Your task to perform on an android device: choose inbox layout in the gmail app Image 0: 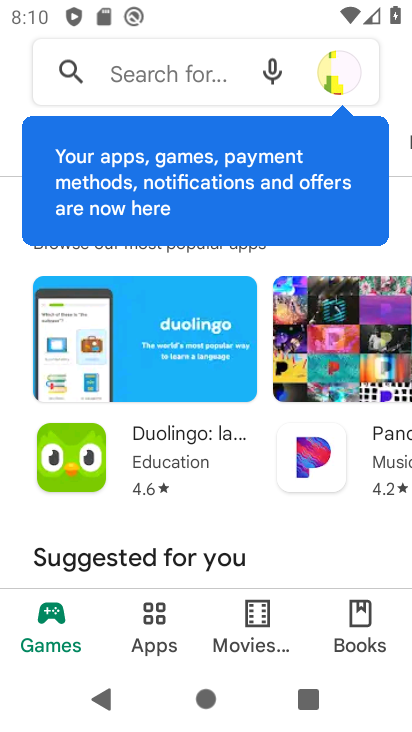
Step 0: press home button
Your task to perform on an android device: choose inbox layout in the gmail app Image 1: 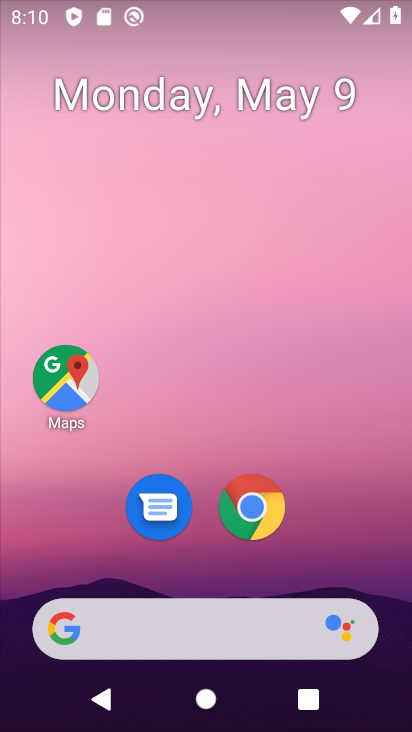
Step 1: drag from (191, 591) to (142, 0)
Your task to perform on an android device: choose inbox layout in the gmail app Image 2: 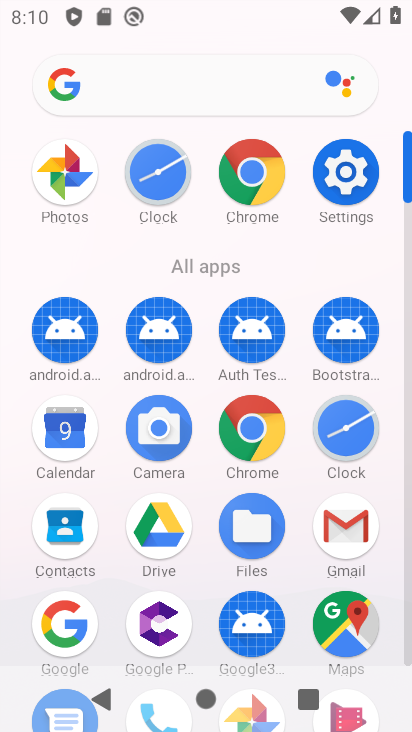
Step 2: click (369, 535)
Your task to perform on an android device: choose inbox layout in the gmail app Image 3: 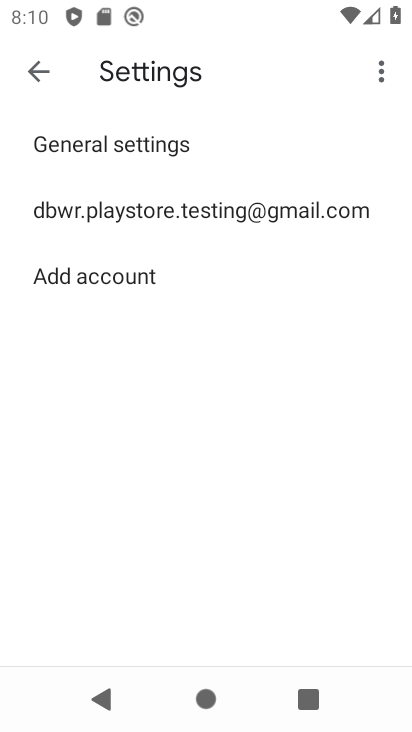
Step 3: click (24, 84)
Your task to perform on an android device: choose inbox layout in the gmail app Image 4: 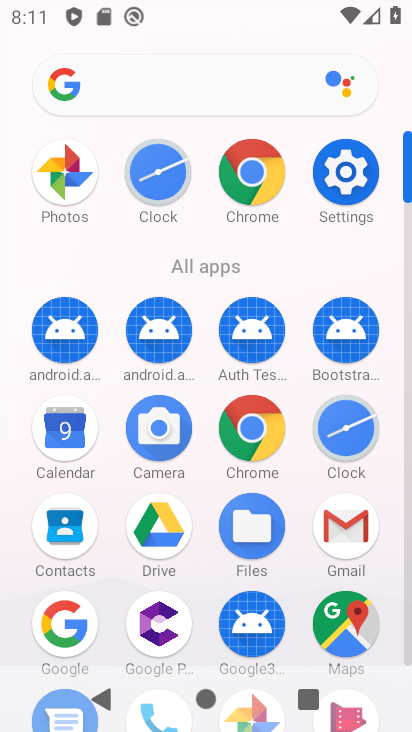
Step 4: click (328, 527)
Your task to perform on an android device: choose inbox layout in the gmail app Image 5: 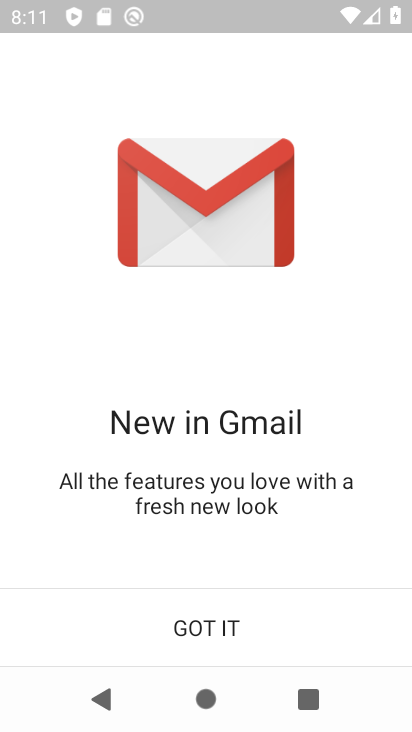
Step 5: click (215, 618)
Your task to perform on an android device: choose inbox layout in the gmail app Image 6: 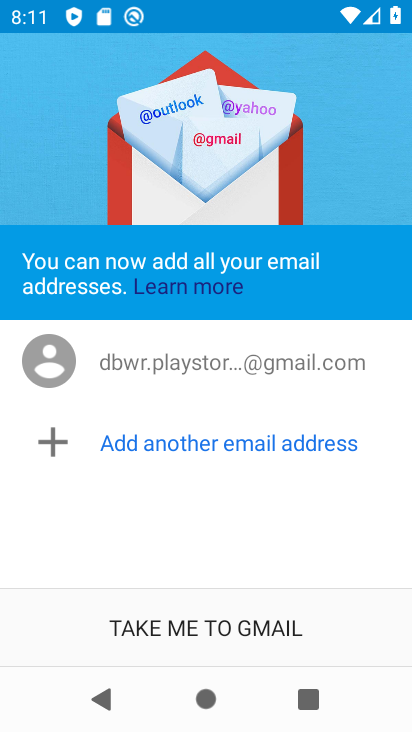
Step 6: click (196, 620)
Your task to perform on an android device: choose inbox layout in the gmail app Image 7: 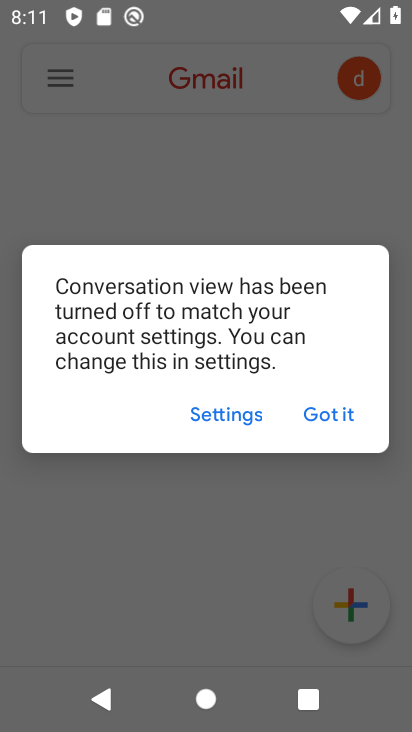
Step 7: click (333, 420)
Your task to perform on an android device: choose inbox layout in the gmail app Image 8: 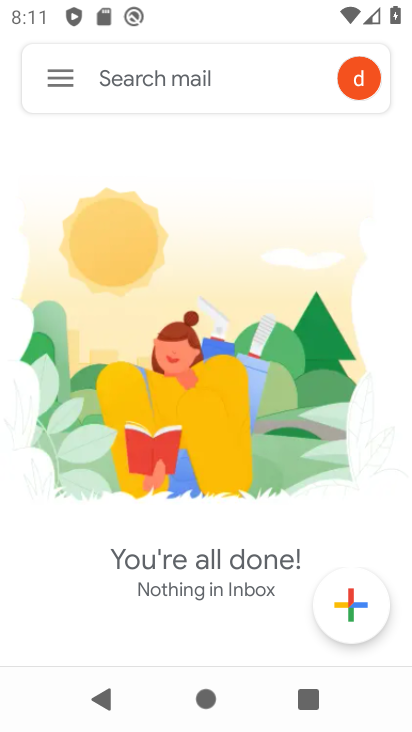
Step 8: click (35, 68)
Your task to perform on an android device: choose inbox layout in the gmail app Image 9: 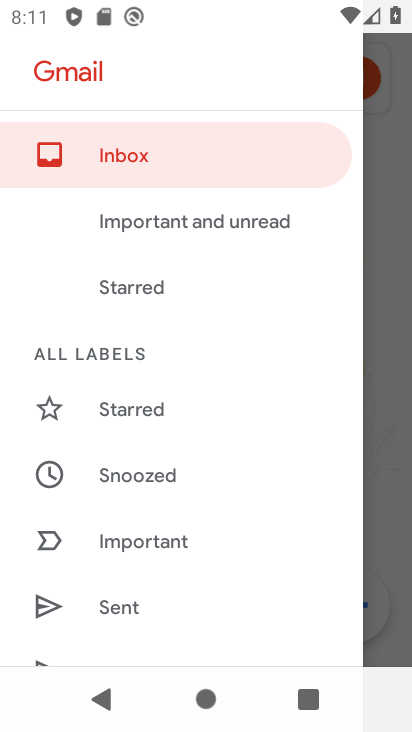
Step 9: drag from (156, 522) to (118, 17)
Your task to perform on an android device: choose inbox layout in the gmail app Image 10: 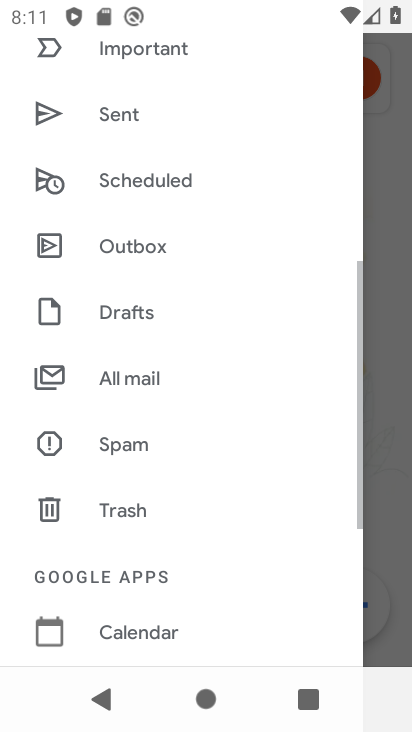
Step 10: drag from (137, 579) to (139, 122)
Your task to perform on an android device: choose inbox layout in the gmail app Image 11: 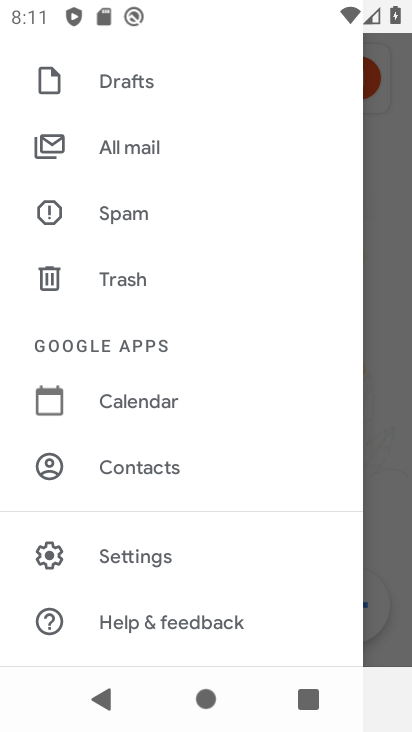
Step 11: click (148, 576)
Your task to perform on an android device: choose inbox layout in the gmail app Image 12: 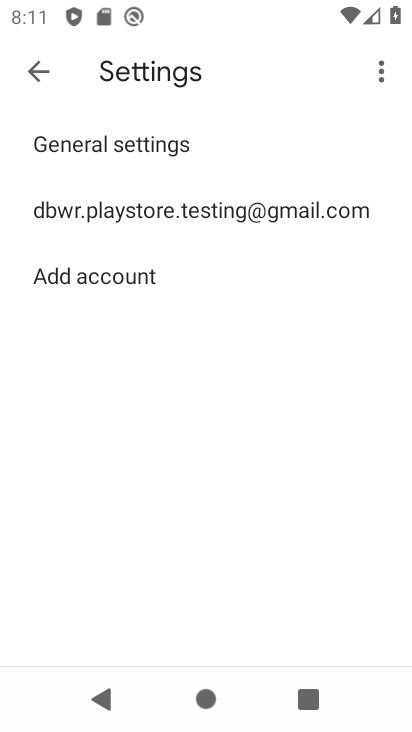
Step 12: click (170, 207)
Your task to perform on an android device: choose inbox layout in the gmail app Image 13: 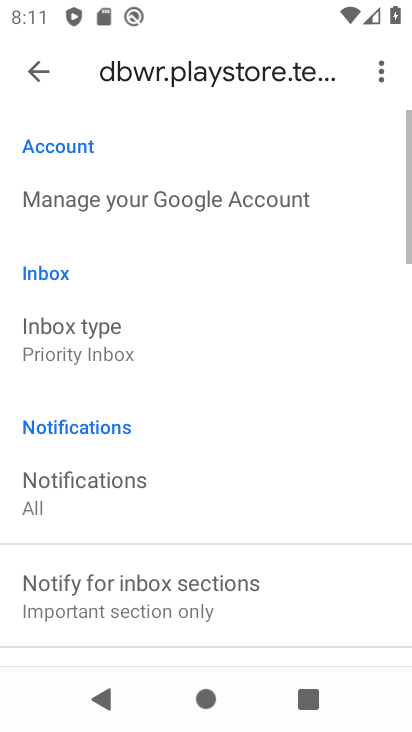
Step 13: click (128, 345)
Your task to perform on an android device: choose inbox layout in the gmail app Image 14: 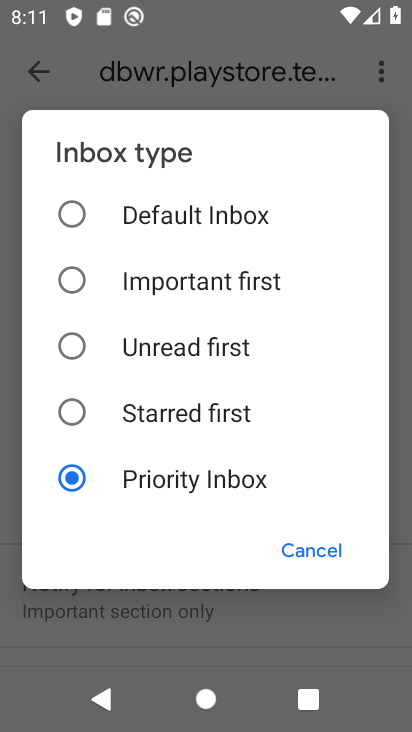
Step 14: click (169, 204)
Your task to perform on an android device: choose inbox layout in the gmail app Image 15: 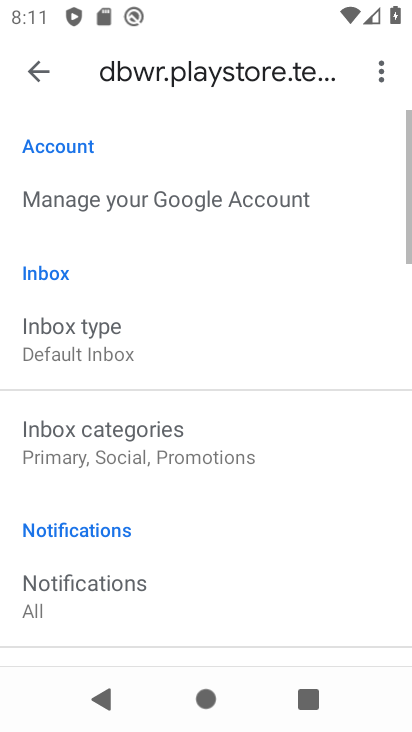
Step 15: task complete